Your task to perform on an android device: delete browsing data in the chrome app Image 0: 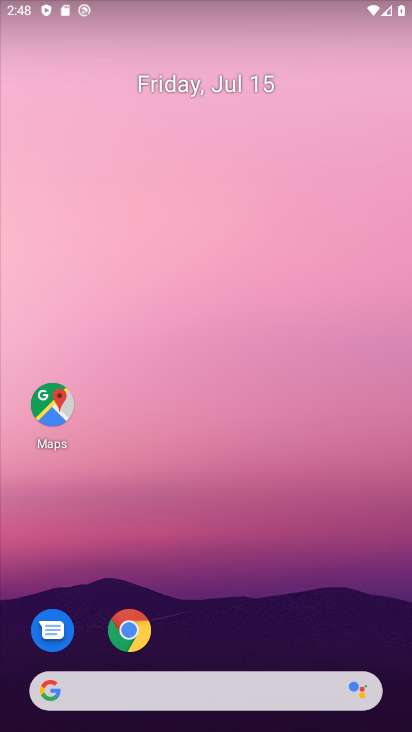
Step 0: click (136, 637)
Your task to perform on an android device: delete browsing data in the chrome app Image 1: 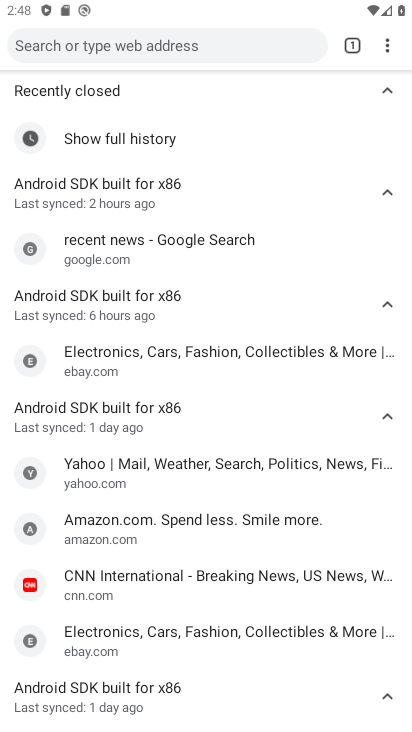
Step 1: click (385, 47)
Your task to perform on an android device: delete browsing data in the chrome app Image 2: 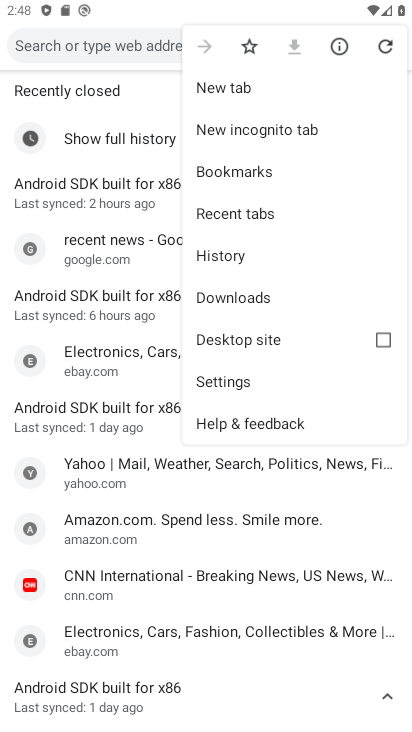
Step 2: click (385, 47)
Your task to perform on an android device: delete browsing data in the chrome app Image 3: 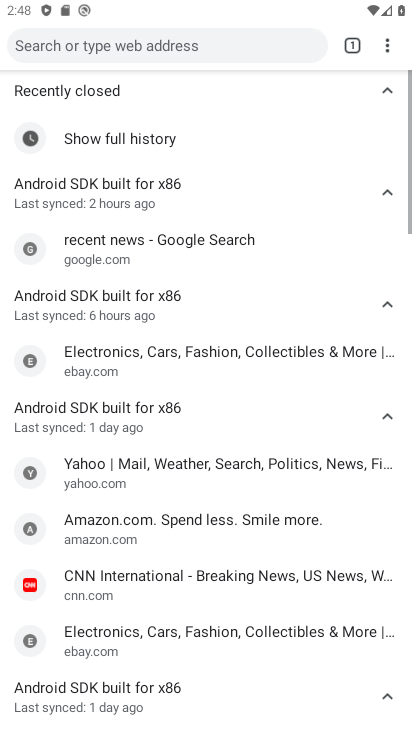
Step 3: click (387, 43)
Your task to perform on an android device: delete browsing data in the chrome app Image 4: 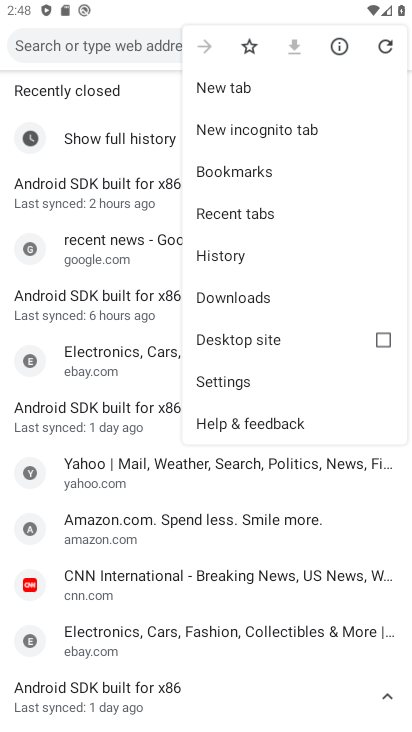
Step 4: click (258, 256)
Your task to perform on an android device: delete browsing data in the chrome app Image 5: 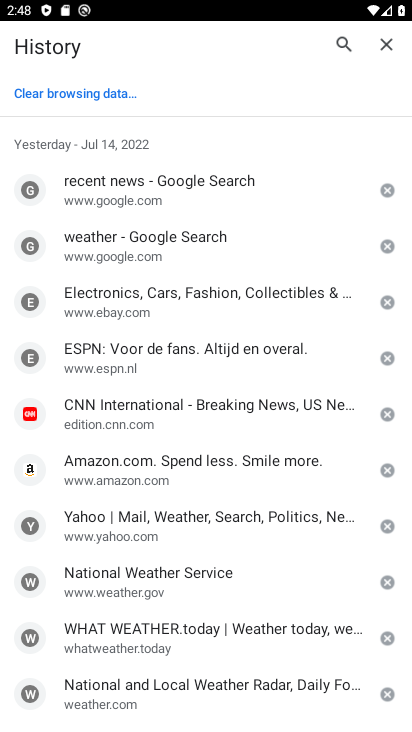
Step 5: click (109, 89)
Your task to perform on an android device: delete browsing data in the chrome app Image 6: 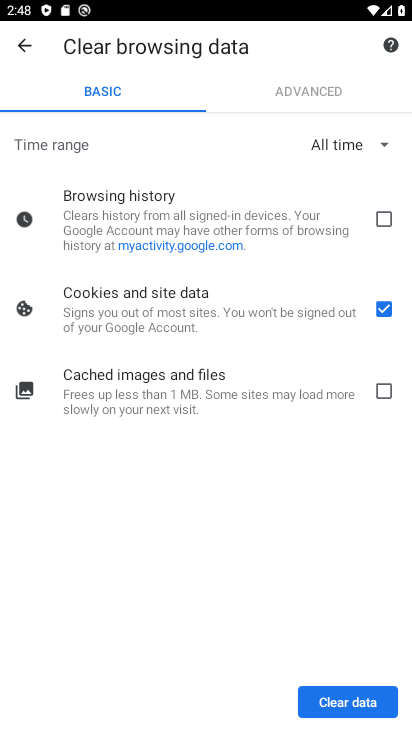
Step 6: click (352, 707)
Your task to perform on an android device: delete browsing data in the chrome app Image 7: 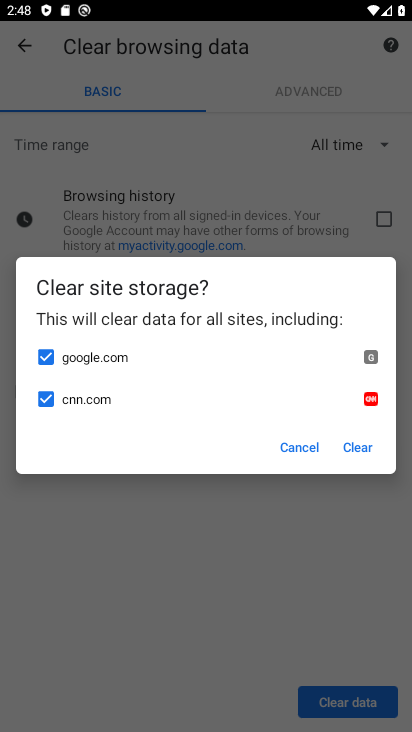
Step 7: click (352, 704)
Your task to perform on an android device: delete browsing data in the chrome app Image 8: 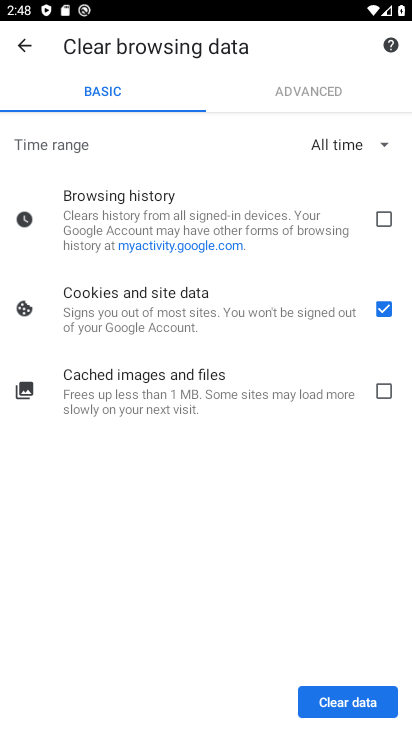
Step 8: click (332, 690)
Your task to perform on an android device: delete browsing data in the chrome app Image 9: 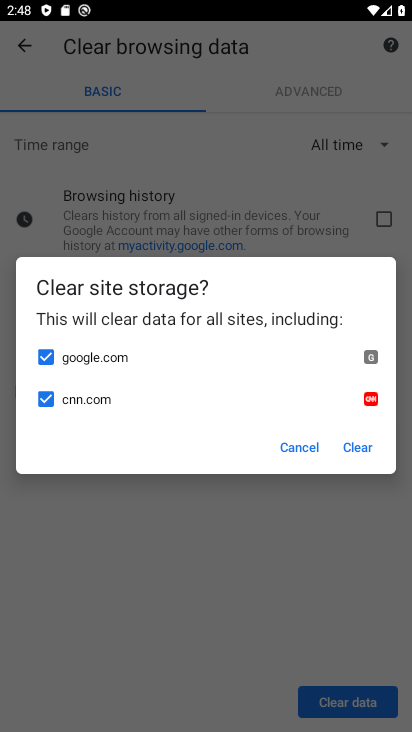
Step 9: click (363, 442)
Your task to perform on an android device: delete browsing data in the chrome app Image 10: 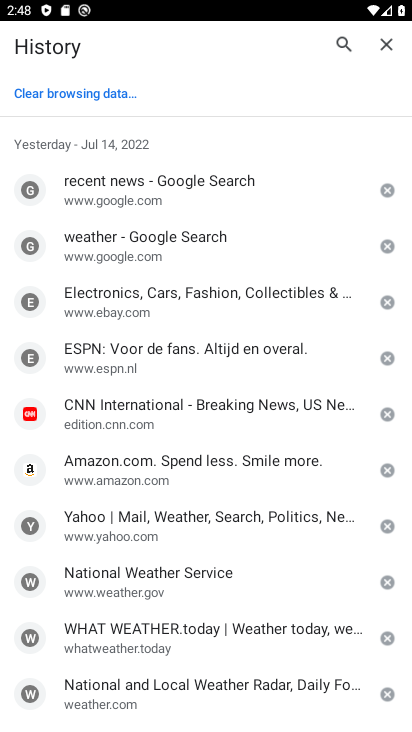
Step 10: task complete